Your task to perform on an android device: turn on translation in the chrome app Image 0: 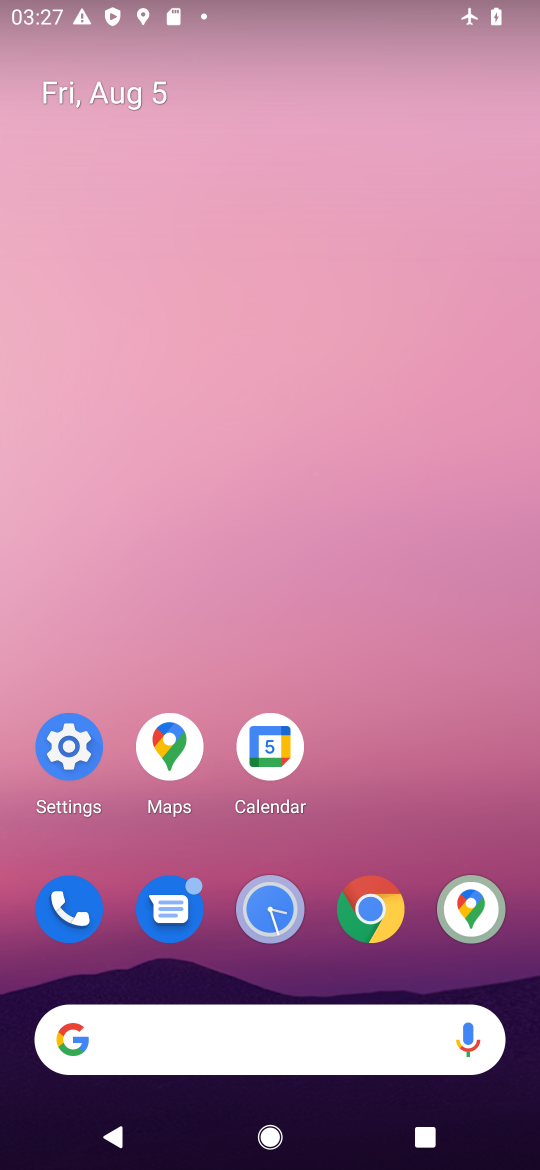
Step 0: click (378, 922)
Your task to perform on an android device: turn on translation in the chrome app Image 1: 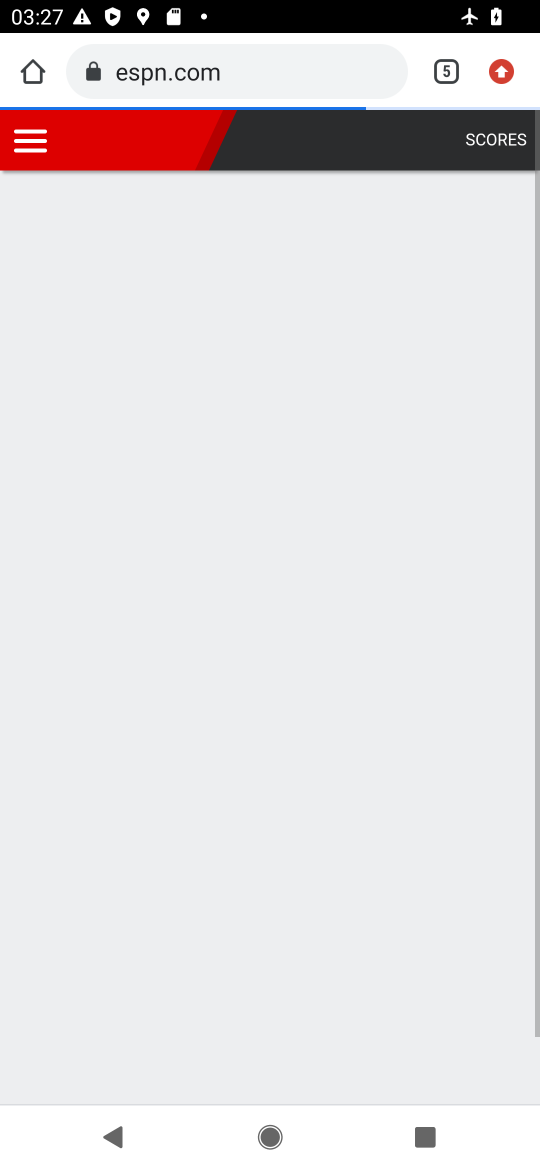
Step 1: click (505, 61)
Your task to perform on an android device: turn on translation in the chrome app Image 2: 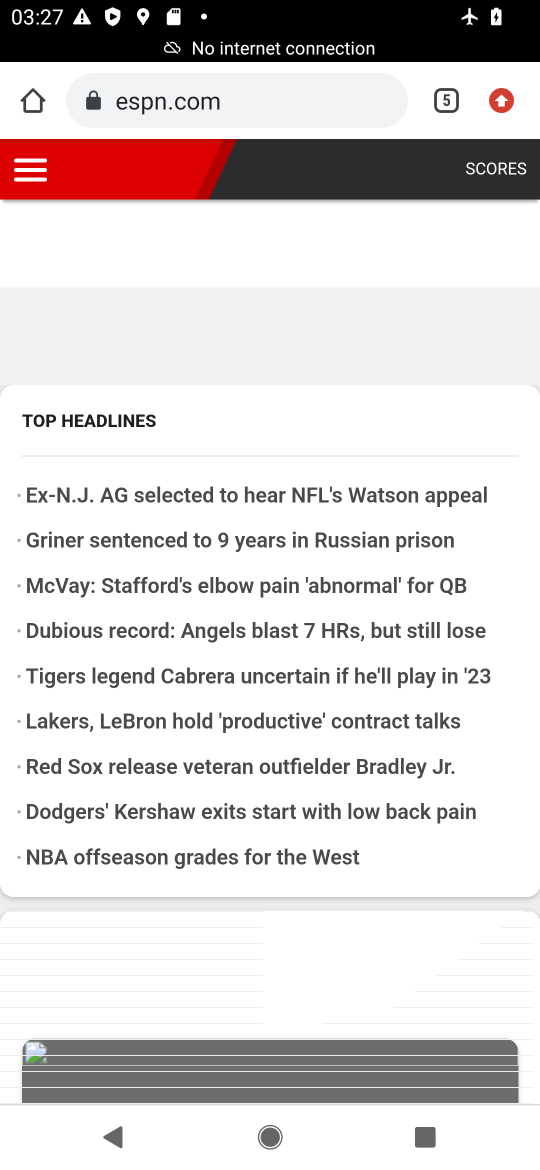
Step 2: click (505, 98)
Your task to perform on an android device: turn on translation in the chrome app Image 3: 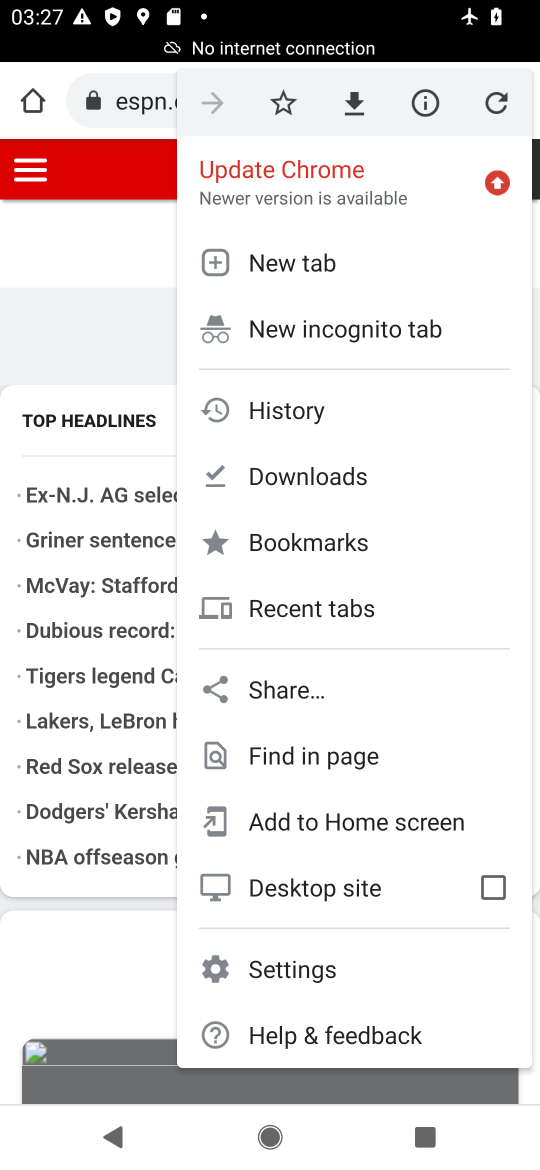
Step 3: click (295, 960)
Your task to perform on an android device: turn on translation in the chrome app Image 4: 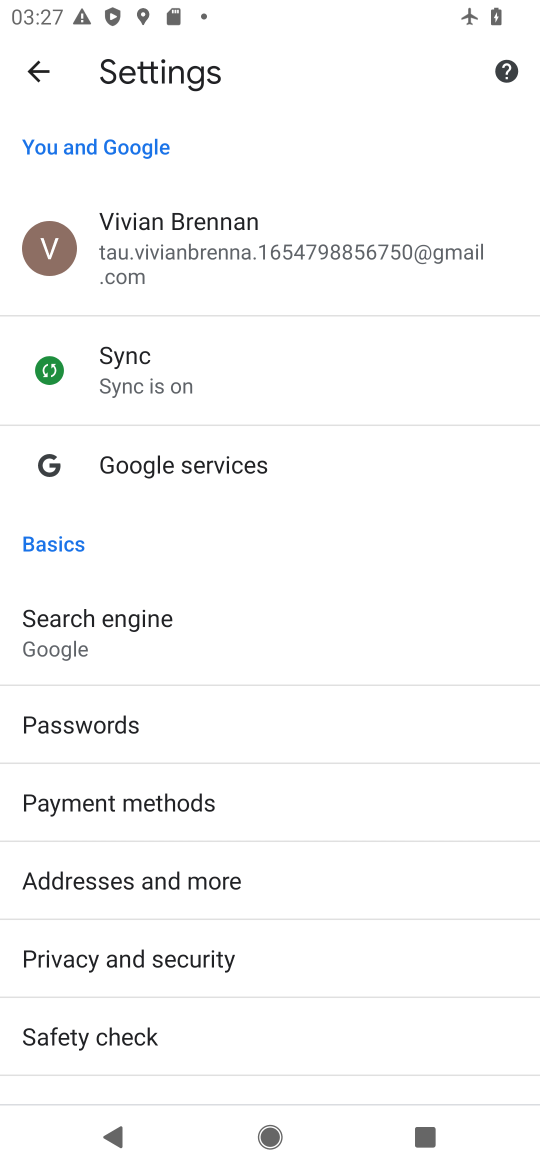
Step 4: drag from (264, 993) to (291, 381)
Your task to perform on an android device: turn on translation in the chrome app Image 5: 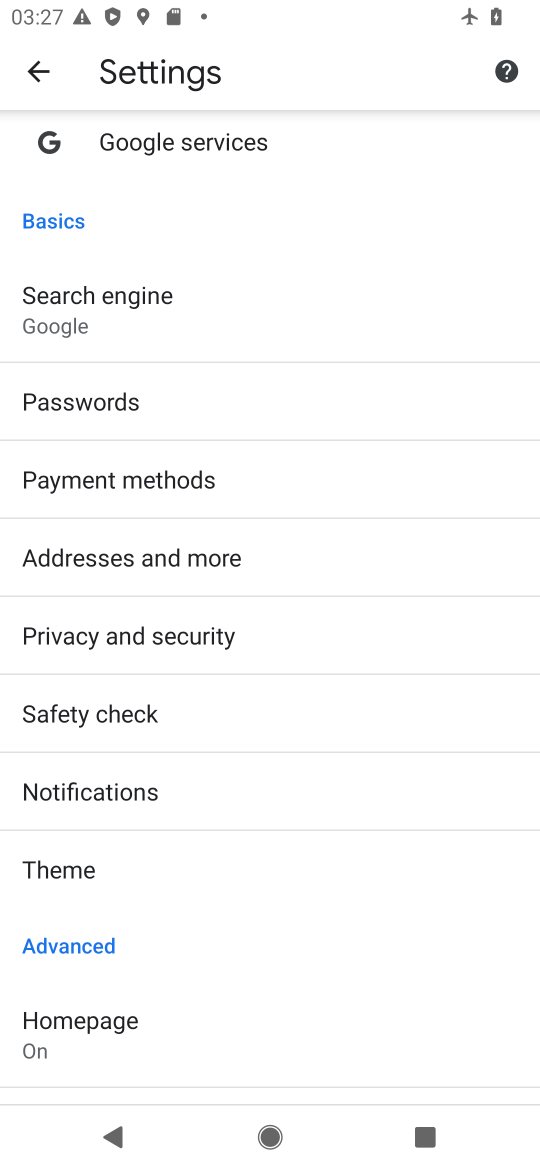
Step 5: drag from (286, 937) to (295, 410)
Your task to perform on an android device: turn on translation in the chrome app Image 6: 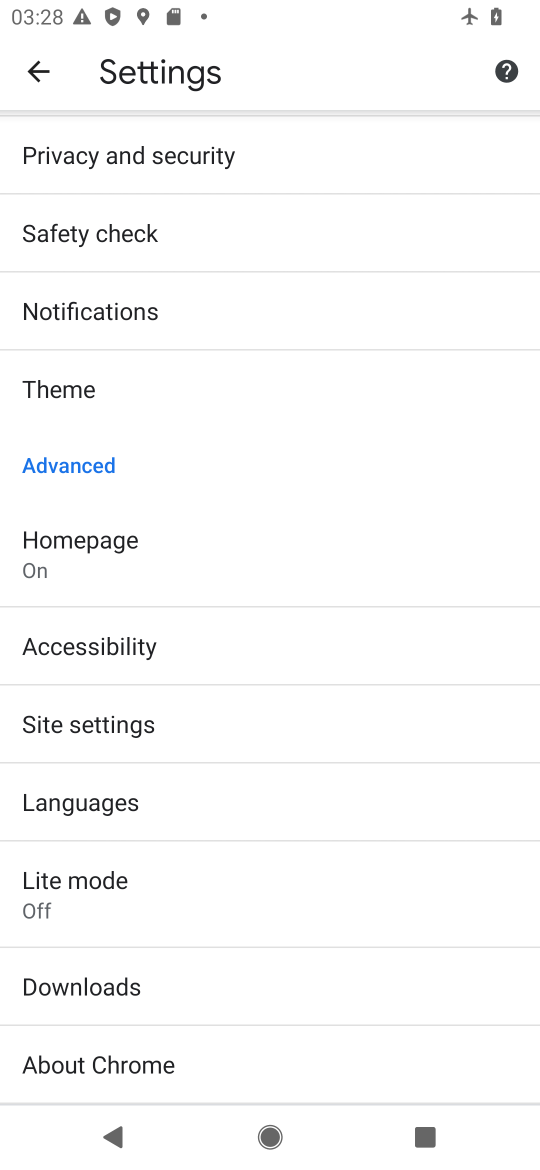
Step 6: click (72, 803)
Your task to perform on an android device: turn on translation in the chrome app Image 7: 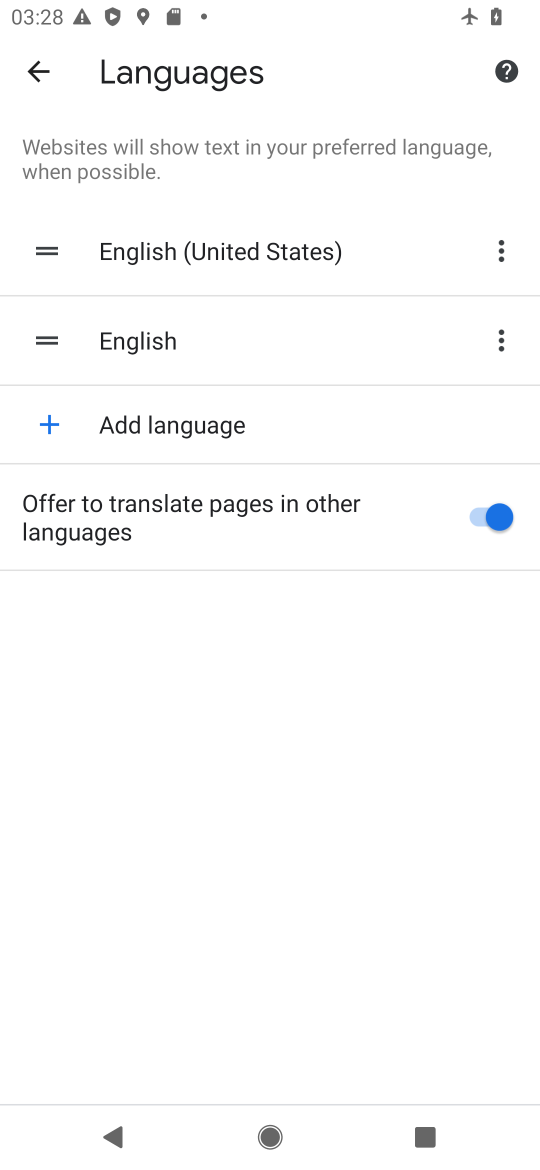
Step 7: task complete